Your task to perform on an android device: Go to settings Image 0: 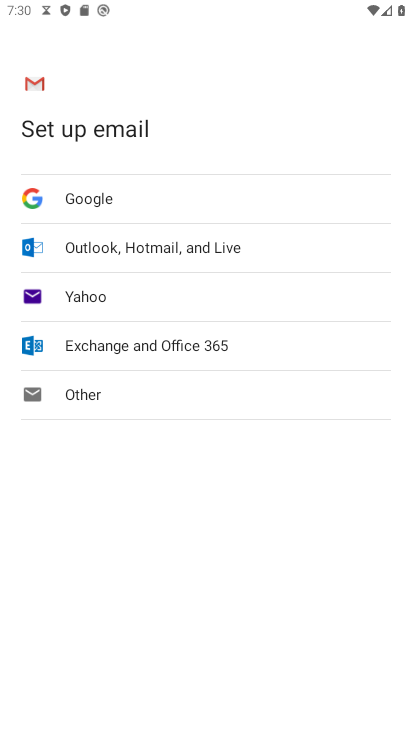
Step 0: press home button
Your task to perform on an android device: Go to settings Image 1: 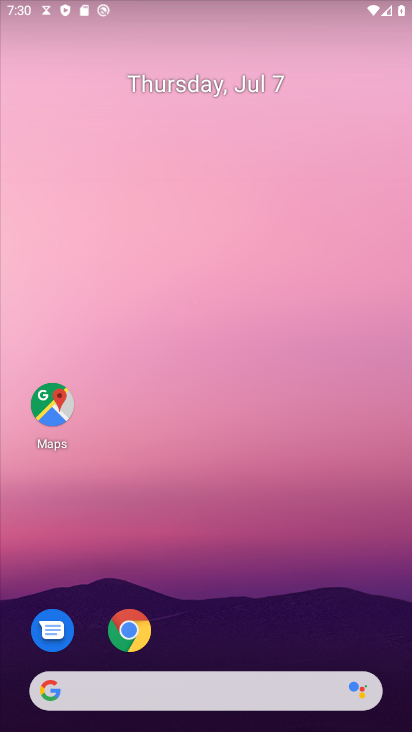
Step 1: drag from (196, 669) to (182, 291)
Your task to perform on an android device: Go to settings Image 2: 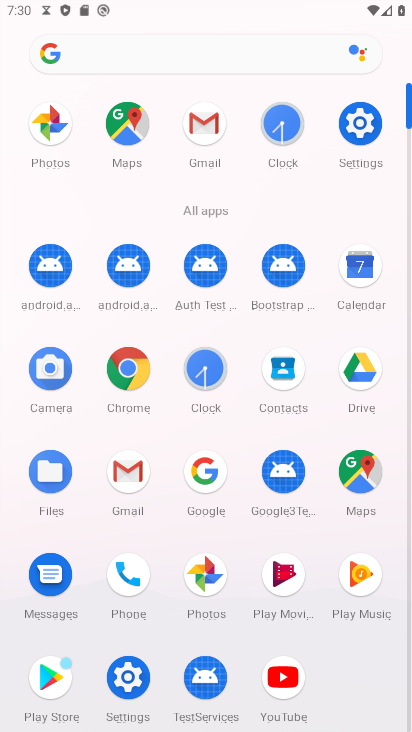
Step 2: click (351, 126)
Your task to perform on an android device: Go to settings Image 3: 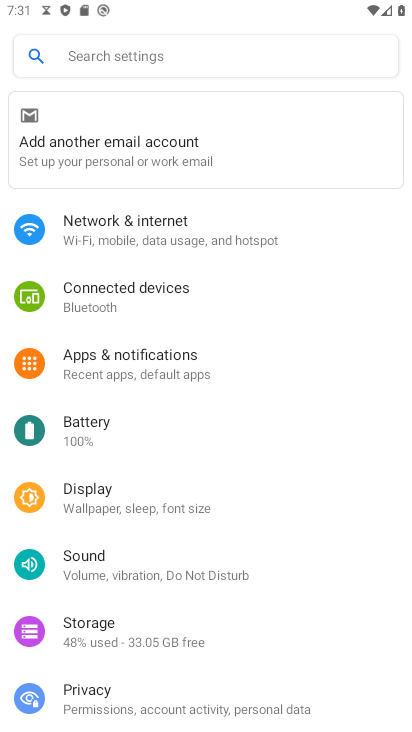
Step 3: task complete